Your task to perform on an android device: Search for seafood restaurants on Google Maps Image 0: 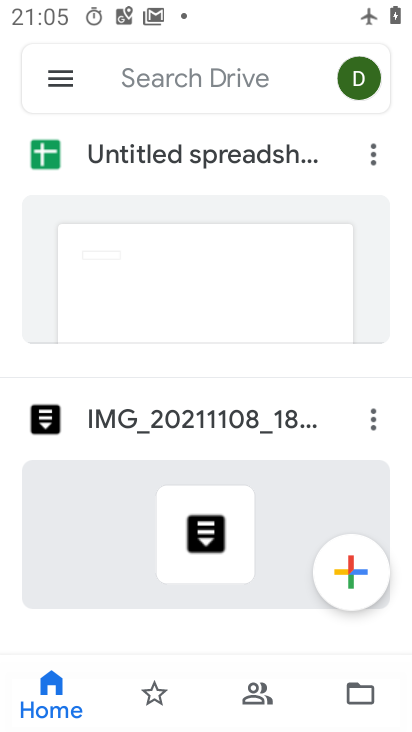
Step 0: press home button
Your task to perform on an android device: Search for seafood restaurants on Google Maps Image 1: 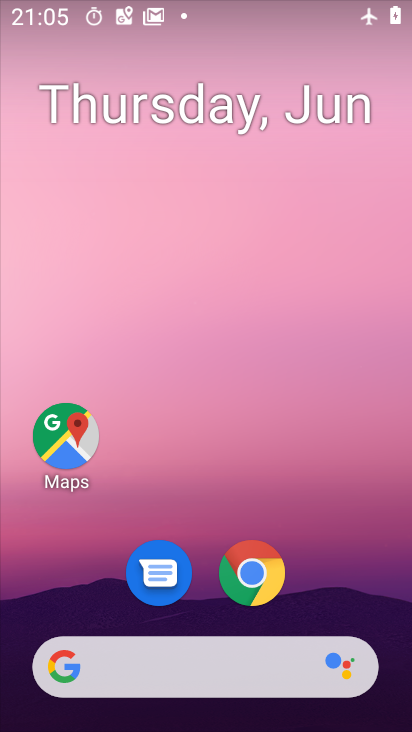
Step 1: click (65, 420)
Your task to perform on an android device: Search for seafood restaurants on Google Maps Image 2: 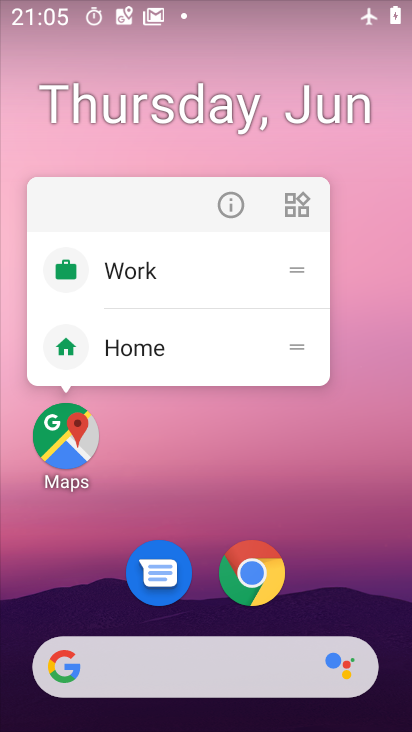
Step 2: click (66, 434)
Your task to perform on an android device: Search for seafood restaurants on Google Maps Image 3: 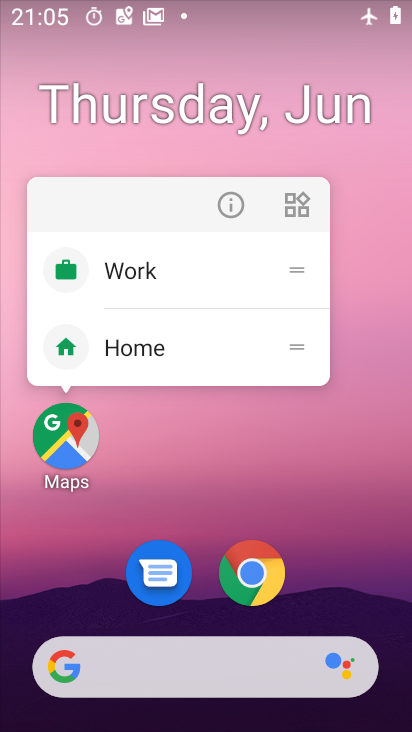
Step 3: click (68, 447)
Your task to perform on an android device: Search for seafood restaurants on Google Maps Image 4: 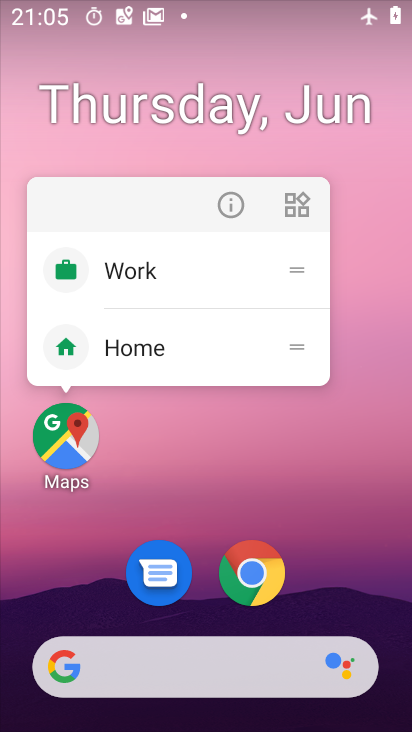
Step 4: click (68, 445)
Your task to perform on an android device: Search for seafood restaurants on Google Maps Image 5: 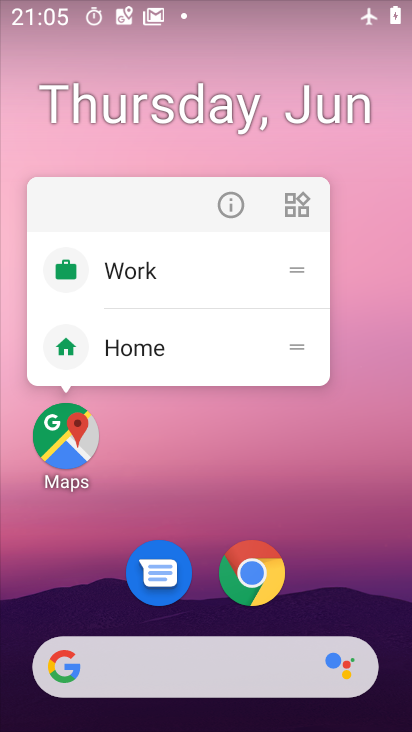
Step 5: click (67, 443)
Your task to perform on an android device: Search for seafood restaurants on Google Maps Image 6: 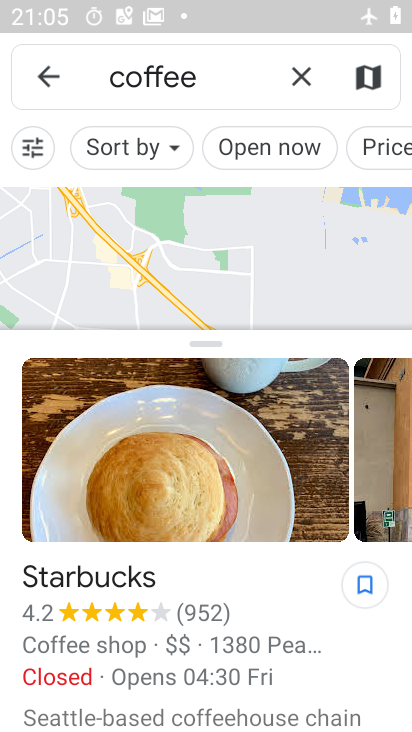
Step 6: click (300, 74)
Your task to perform on an android device: Search for seafood restaurants on Google Maps Image 7: 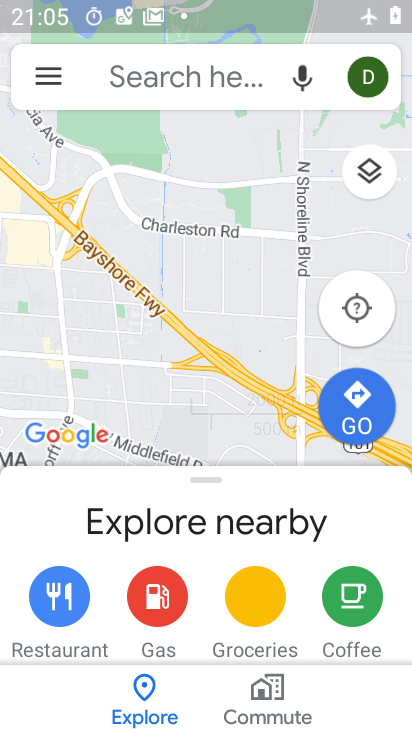
Step 7: click (170, 74)
Your task to perform on an android device: Search for seafood restaurants on Google Maps Image 8: 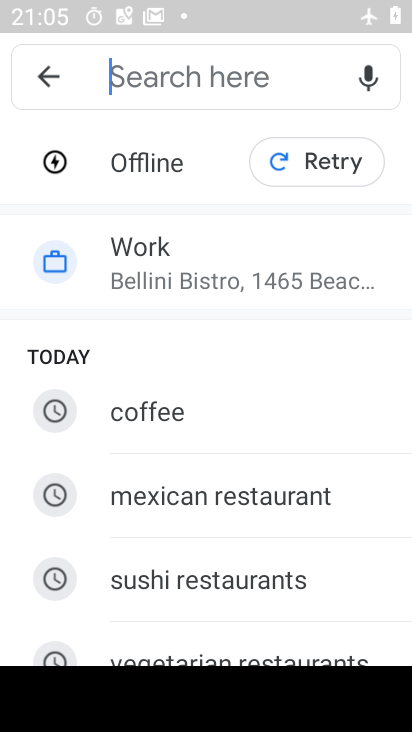
Step 8: drag from (234, 580) to (309, 331)
Your task to perform on an android device: Search for seafood restaurants on Google Maps Image 9: 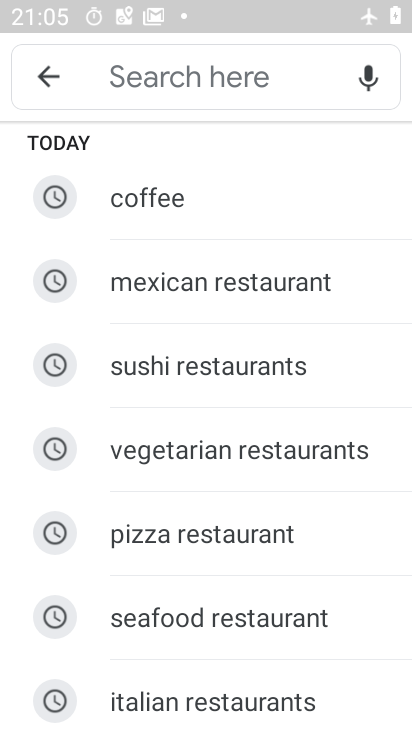
Step 9: click (211, 618)
Your task to perform on an android device: Search for seafood restaurants on Google Maps Image 10: 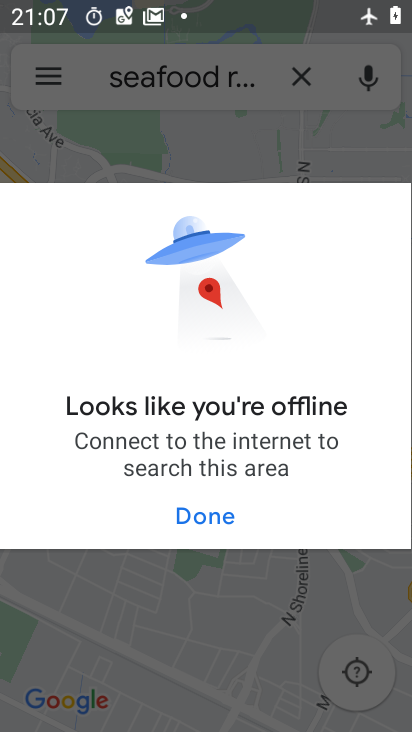
Step 10: task complete